Your task to perform on an android device: turn off notifications in google photos Image 0: 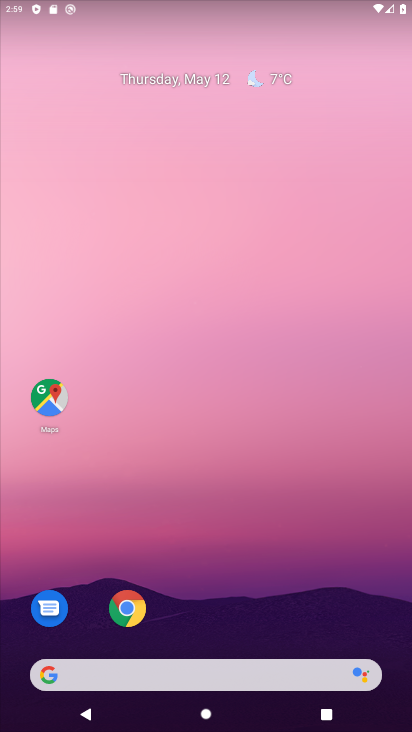
Step 0: drag from (180, 614) to (169, 64)
Your task to perform on an android device: turn off notifications in google photos Image 1: 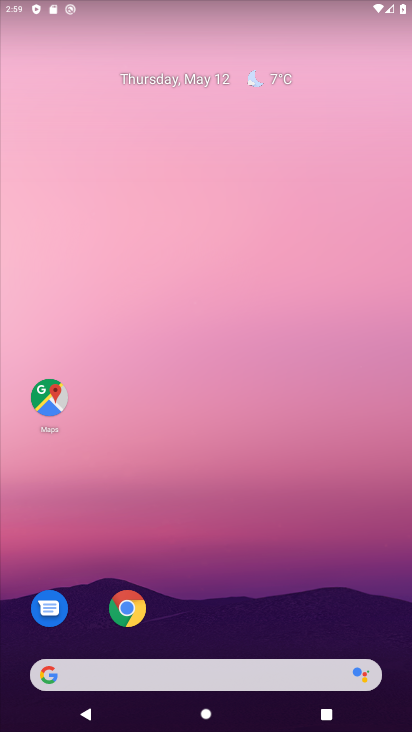
Step 1: click (169, 64)
Your task to perform on an android device: turn off notifications in google photos Image 2: 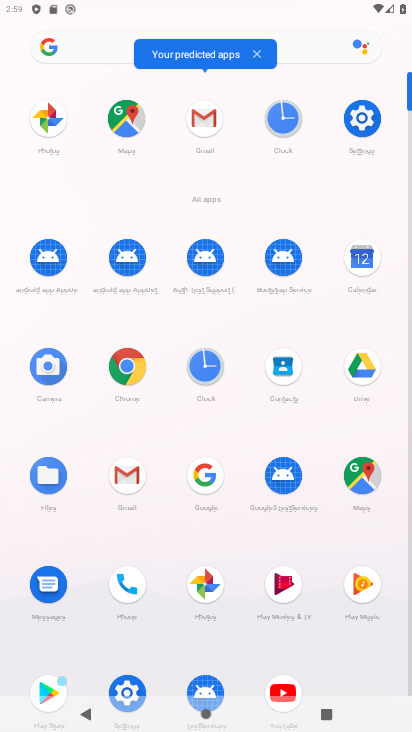
Step 2: click (27, 108)
Your task to perform on an android device: turn off notifications in google photos Image 3: 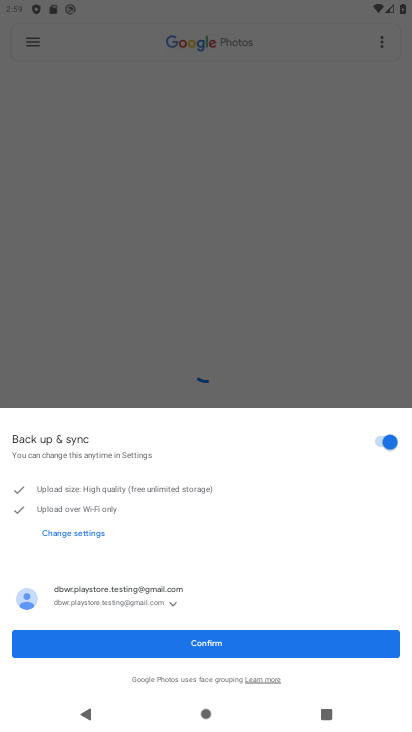
Step 3: click (261, 637)
Your task to perform on an android device: turn off notifications in google photos Image 4: 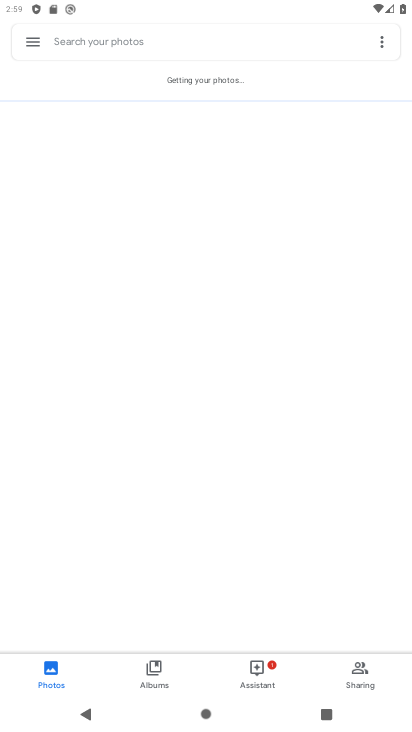
Step 4: click (41, 50)
Your task to perform on an android device: turn off notifications in google photos Image 5: 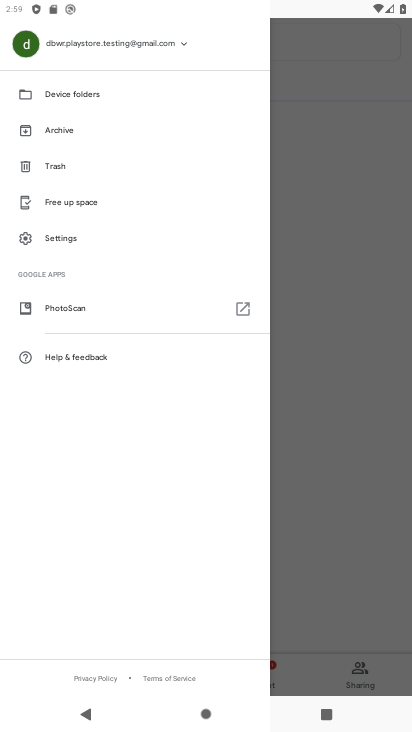
Step 5: click (89, 247)
Your task to perform on an android device: turn off notifications in google photos Image 6: 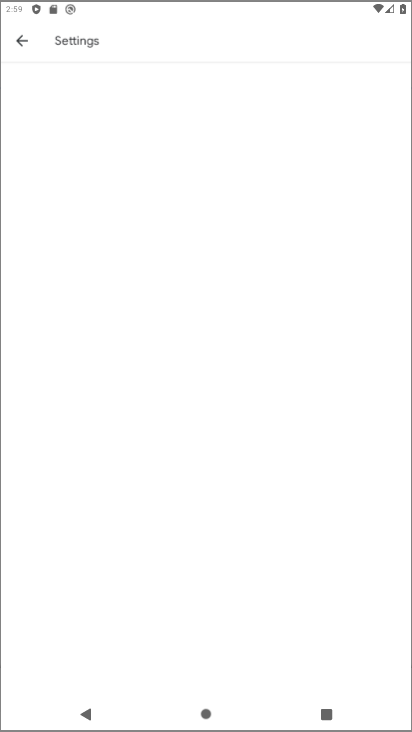
Step 6: click (89, 247)
Your task to perform on an android device: turn off notifications in google photos Image 7: 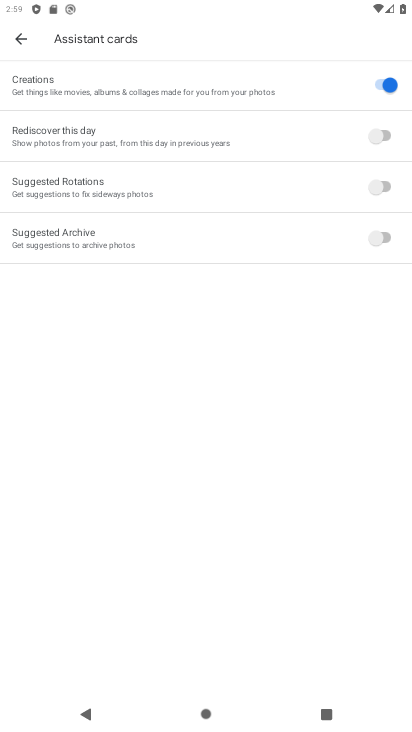
Step 7: click (22, 60)
Your task to perform on an android device: turn off notifications in google photos Image 8: 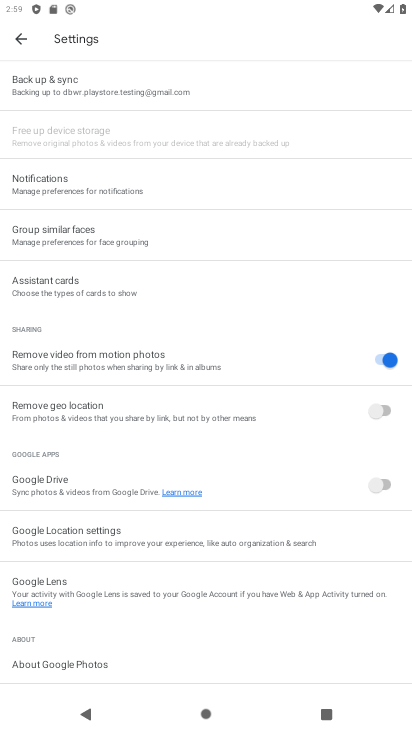
Step 8: click (22, 60)
Your task to perform on an android device: turn off notifications in google photos Image 9: 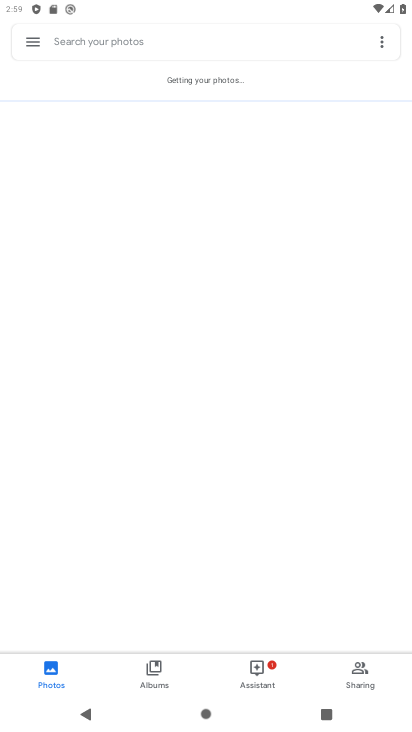
Step 9: click (27, 29)
Your task to perform on an android device: turn off notifications in google photos Image 10: 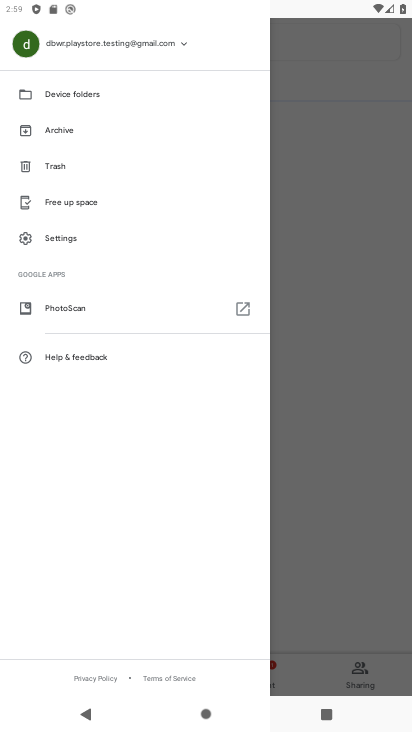
Step 10: click (27, 29)
Your task to perform on an android device: turn off notifications in google photos Image 11: 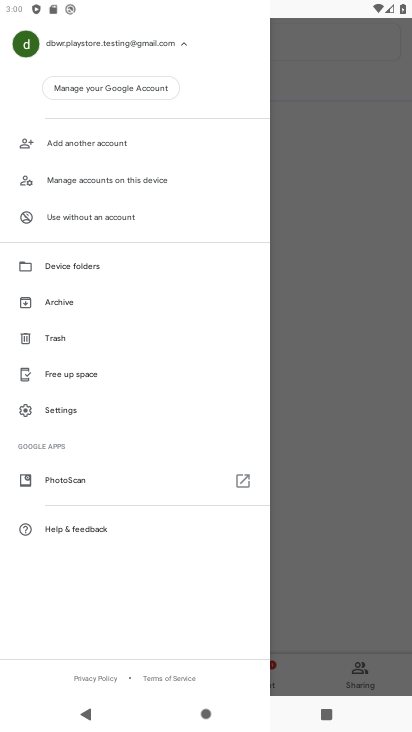
Step 11: click (80, 423)
Your task to perform on an android device: turn off notifications in google photos Image 12: 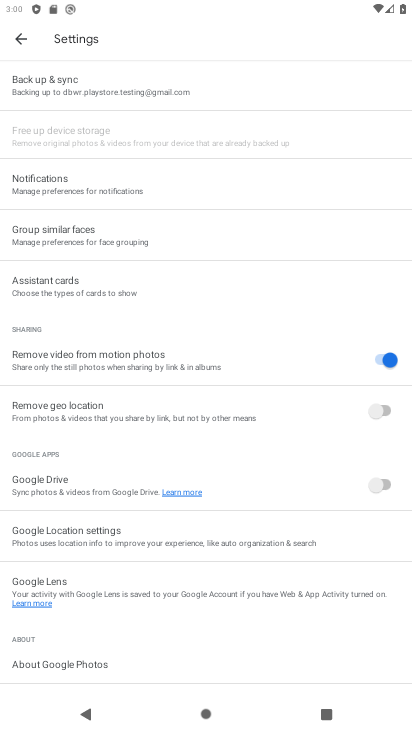
Step 12: click (94, 178)
Your task to perform on an android device: turn off notifications in google photos Image 13: 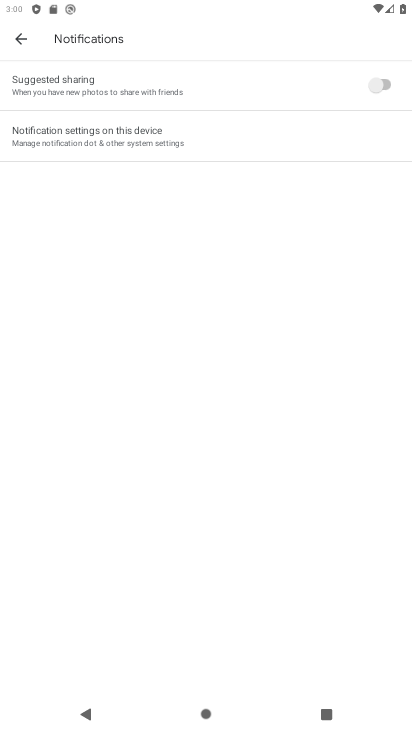
Step 13: click (331, 129)
Your task to perform on an android device: turn off notifications in google photos Image 14: 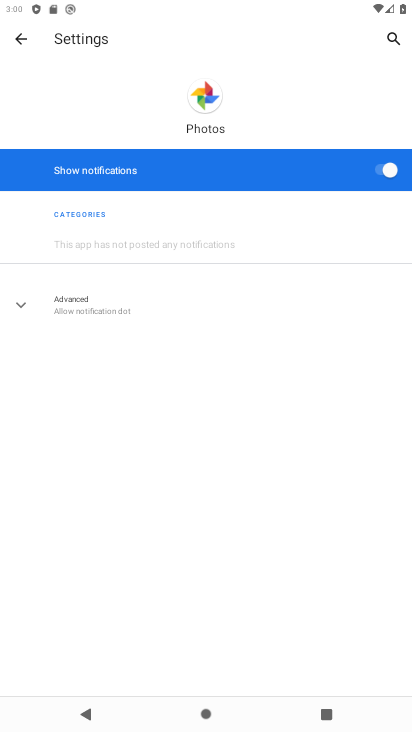
Step 14: click (396, 186)
Your task to perform on an android device: turn off notifications in google photos Image 15: 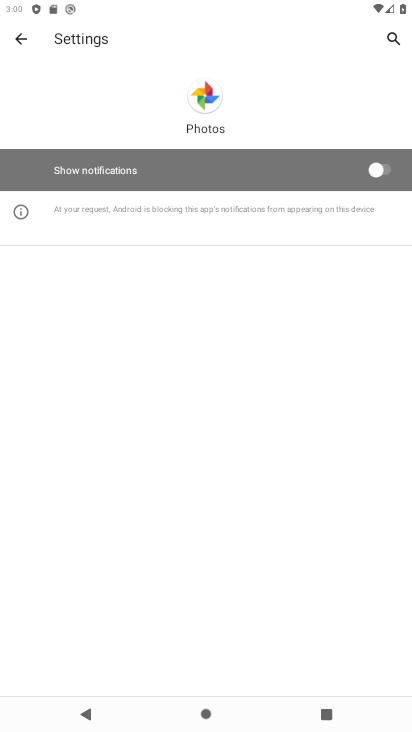
Step 15: task complete